Your task to perform on an android device: Open the calendar and show me this week's events Image 0: 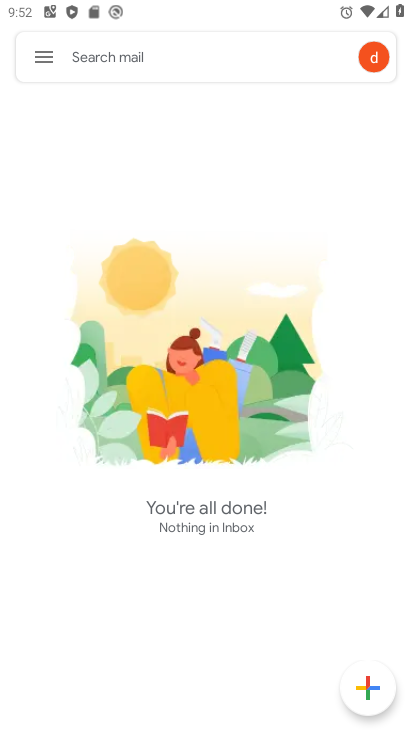
Step 0: press home button
Your task to perform on an android device: Open the calendar and show me this week's events Image 1: 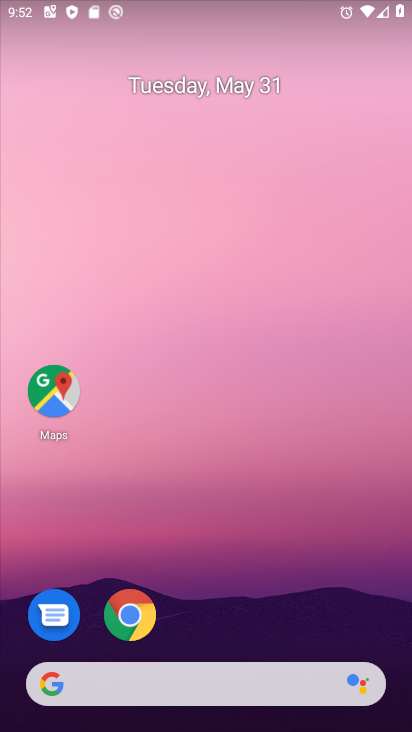
Step 1: drag from (298, 518) to (244, 15)
Your task to perform on an android device: Open the calendar and show me this week's events Image 2: 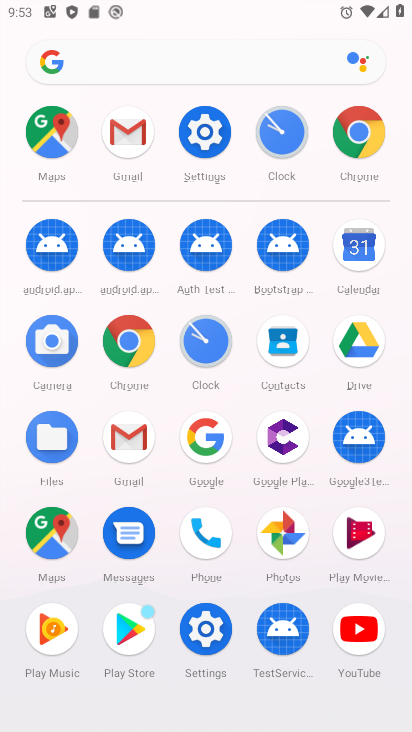
Step 2: click (382, 262)
Your task to perform on an android device: Open the calendar and show me this week's events Image 3: 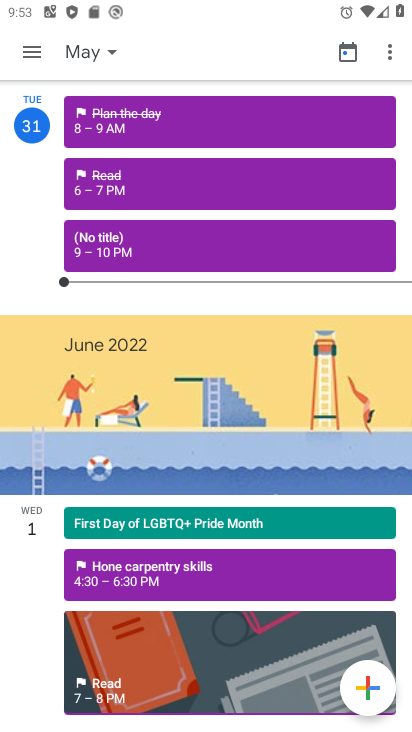
Step 3: click (95, 53)
Your task to perform on an android device: Open the calendar and show me this week's events Image 4: 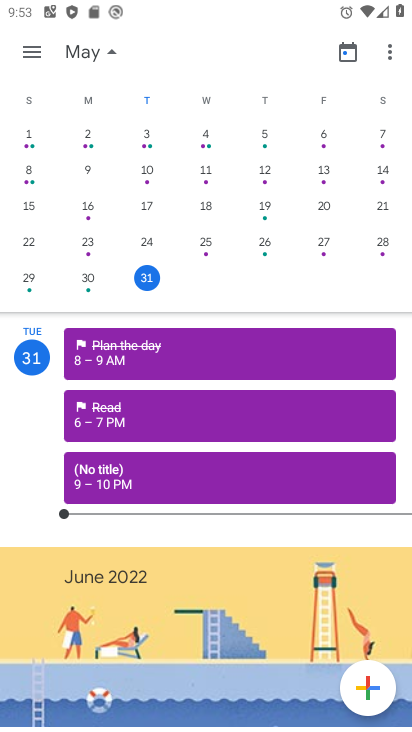
Step 4: drag from (332, 263) to (41, 223)
Your task to perform on an android device: Open the calendar and show me this week's events Image 5: 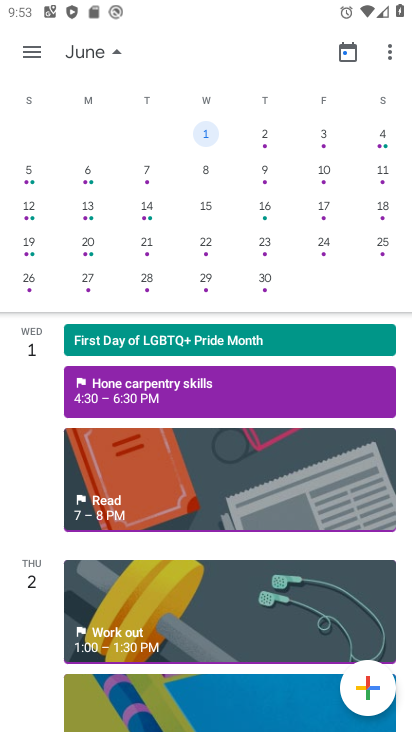
Step 5: click (375, 141)
Your task to perform on an android device: Open the calendar and show me this week's events Image 6: 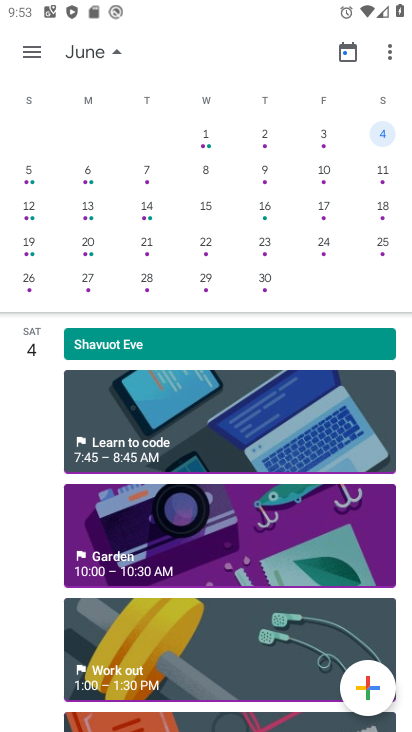
Step 6: task complete